Your task to perform on an android device: Search for the best lawnmowers on Lowes.com Image 0: 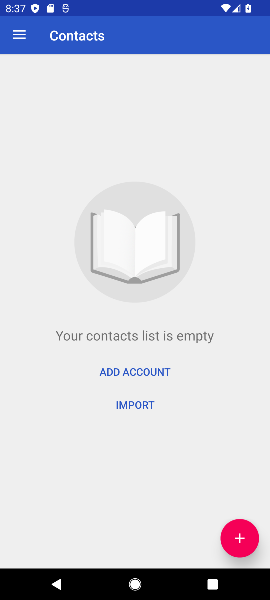
Step 0: press home button
Your task to perform on an android device: Search for the best lawnmowers on Lowes.com Image 1: 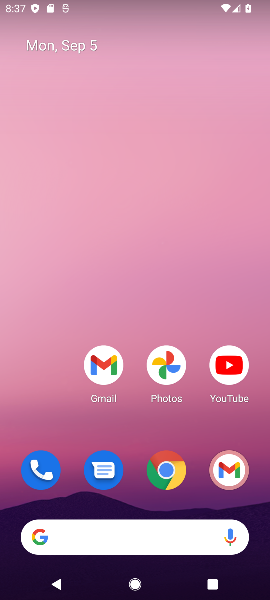
Step 1: click (105, 536)
Your task to perform on an android device: Search for the best lawnmowers on Lowes.com Image 2: 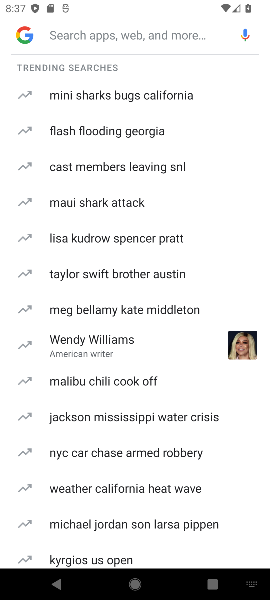
Step 2: type "lowes.com"
Your task to perform on an android device: Search for the best lawnmowers on Lowes.com Image 3: 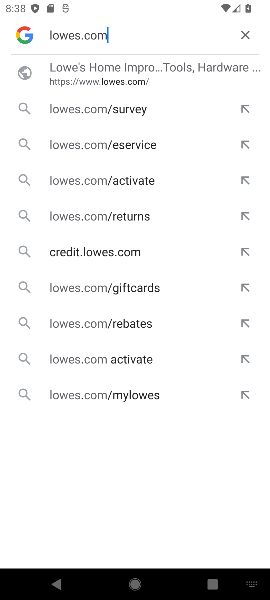
Step 3: click (74, 64)
Your task to perform on an android device: Search for the best lawnmowers on Lowes.com Image 4: 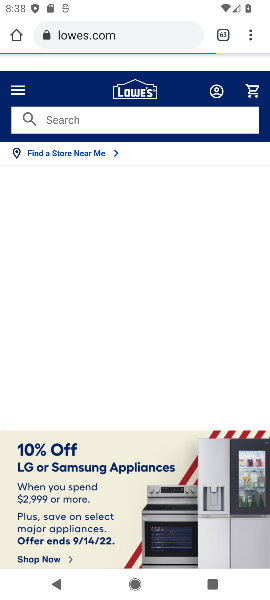
Step 4: click (90, 118)
Your task to perform on an android device: Search for the best lawnmowers on Lowes.com Image 5: 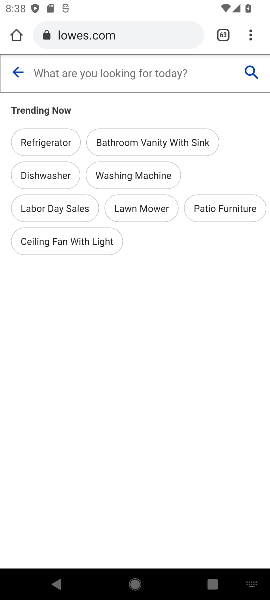
Step 5: type "best lawnmowers"
Your task to perform on an android device: Search for the best lawnmowers on Lowes.com Image 6: 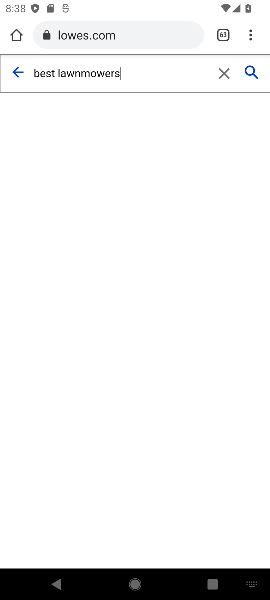
Step 6: click (250, 71)
Your task to perform on an android device: Search for the best lawnmowers on Lowes.com Image 7: 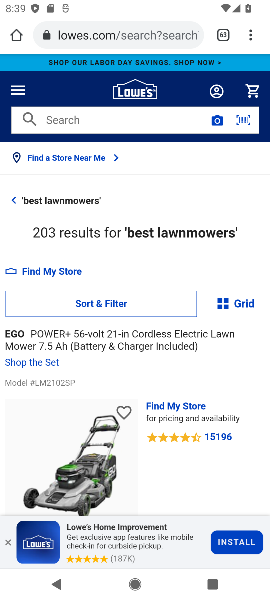
Step 7: task complete